Your task to perform on an android device: Search for alienware aurora on target.com, select the first entry, and add it to the cart. Image 0: 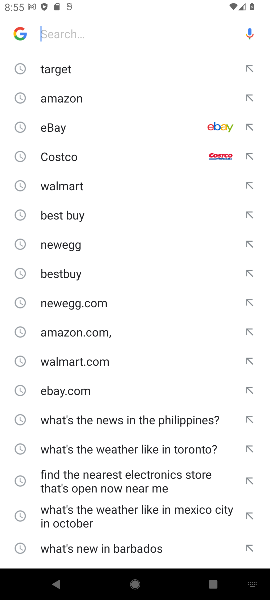
Step 0: click (73, 30)
Your task to perform on an android device: Search for alienware aurora on target.com, select the first entry, and add it to the cart. Image 1: 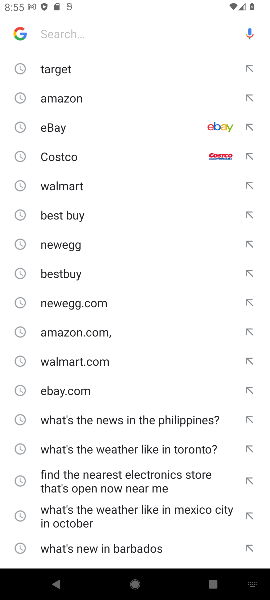
Step 1: type "target.com"
Your task to perform on an android device: Search for alienware aurora on target.com, select the first entry, and add it to the cart. Image 2: 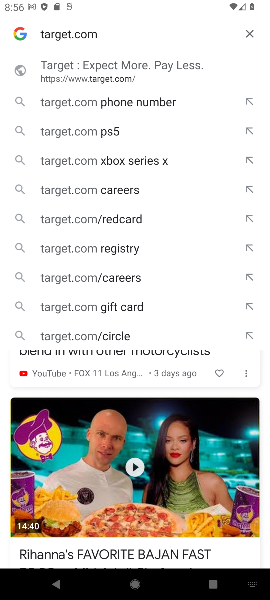
Step 2: click (60, 72)
Your task to perform on an android device: Search for alienware aurora on target.com, select the first entry, and add it to the cart. Image 3: 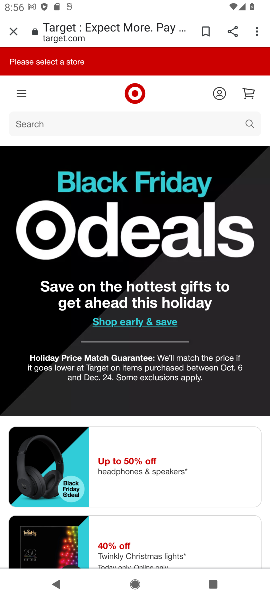
Step 3: click (52, 127)
Your task to perform on an android device: Search for alienware aurora on target.com, select the first entry, and add it to the cart. Image 4: 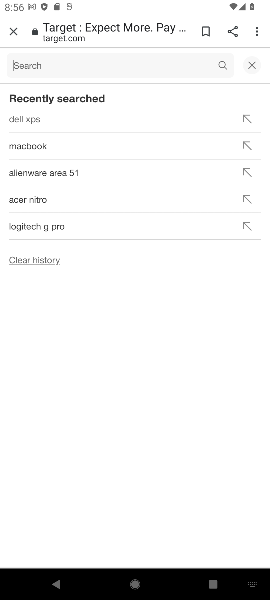
Step 4: type "alienware aurora "
Your task to perform on an android device: Search for alienware aurora on target.com, select the first entry, and add it to the cart. Image 5: 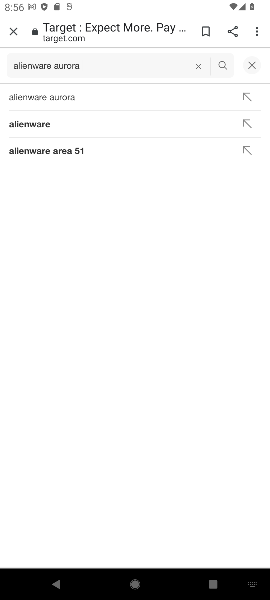
Step 5: click (64, 98)
Your task to perform on an android device: Search for alienware aurora on target.com, select the first entry, and add it to the cart. Image 6: 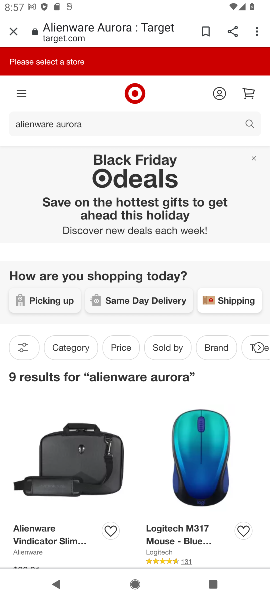
Step 6: task complete